Your task to perform on an android device: Open the Play Movies app and select the watchlist tab. Image 0: 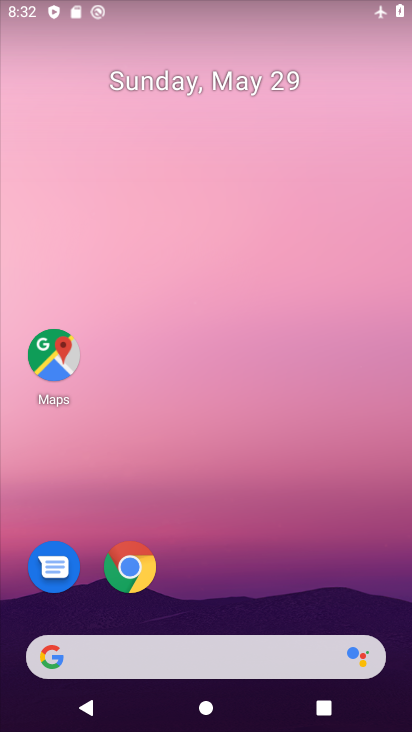
Step 0: drag from (364, 606) to (309, 102)
Your task to perform on an android device: Open the Play Movies app and select the watchlist tab. Image 1: 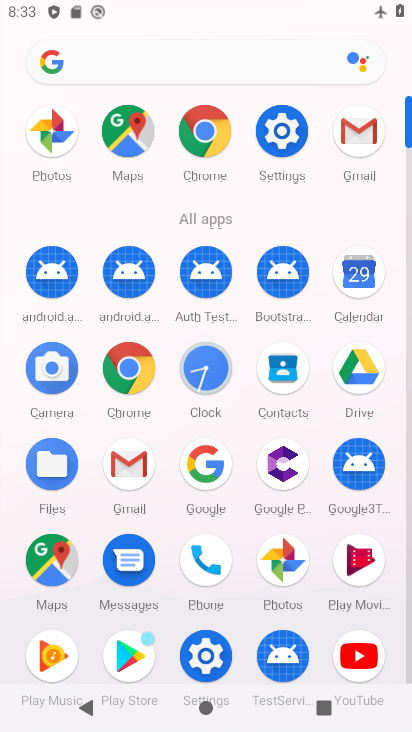
Step 1: click (356, 559)
Your task to perform on an android device: Open the Play Movies app and select the watchlist tab. Image 2: 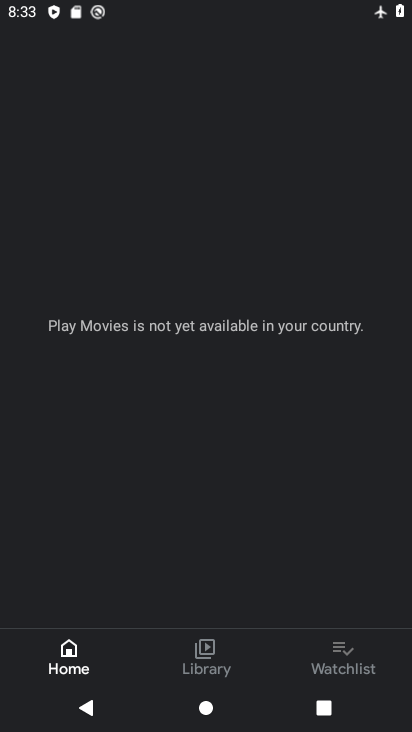
Step 2: click (331, 656)
Your task to perform on an android device: Open the Play Movies app and select the watchlist tab. Image 3: 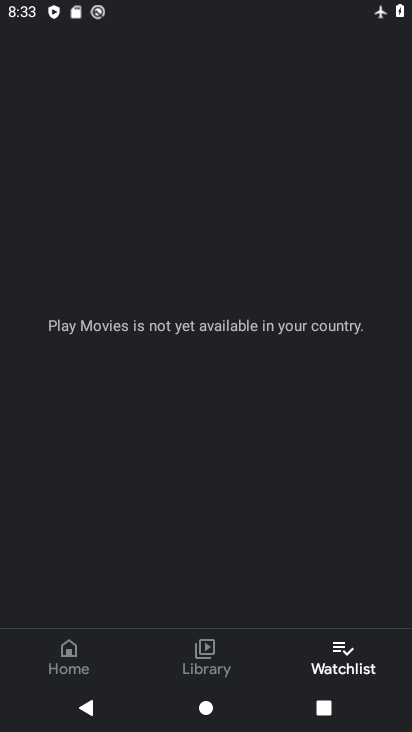
Step 3: task complete